Your task to perform on an android device: change your default location settings in chrome Image 0: 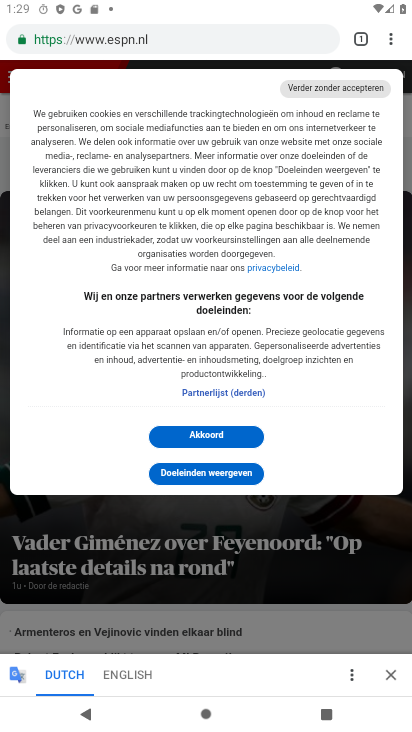
Step 0: drag from (185, 179) to (185, 101)
Your task to perform on an android device: change your default location settings in chrome Image 1: 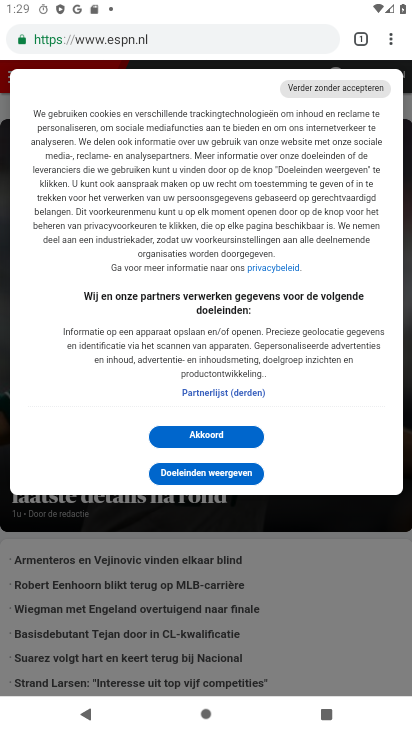
Step 1: press home button
Your task to perform on an android device: change your default location settings in chrome Image 2: 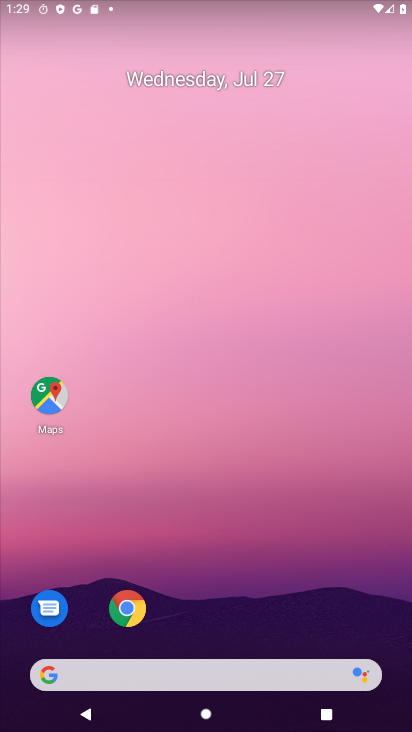
Step 2: click (129, 600)
Your task to perform on an android device: change your default location settings in chrome Image 3: 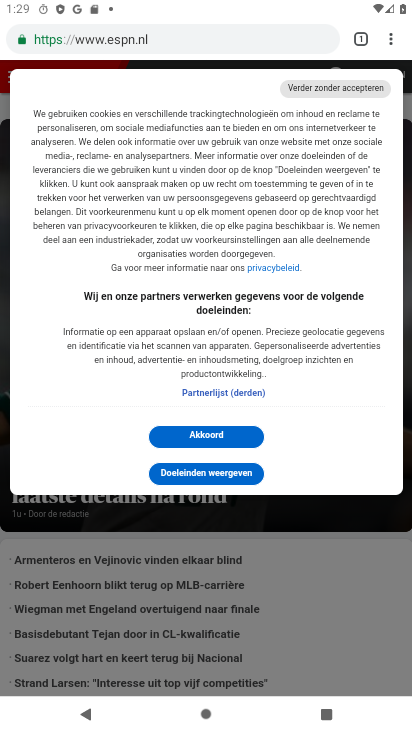
Step 3: click (389, 34)
Your task to perform on an android device: change your default location settings in chrome Image 4: 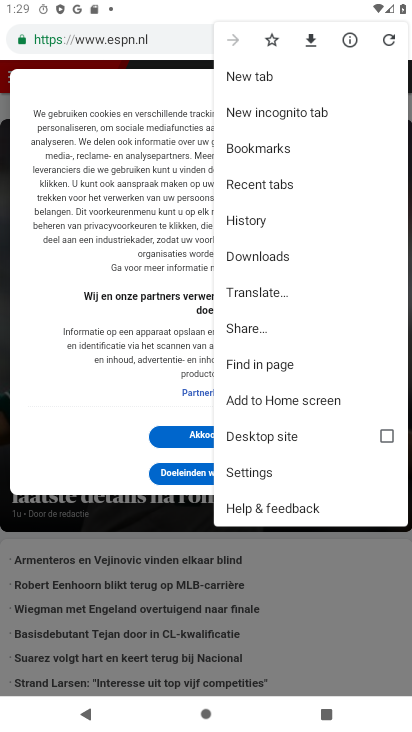
Step 4: click (255, 474)
Your task to perform on an android device: change your default location settings in chrome Image 5: 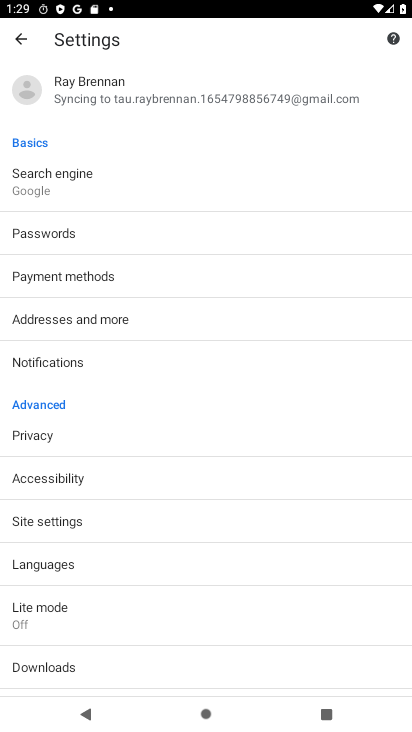
Step 5: click (61, 519)
Your task to perform on an android device: change your default location settings in chrome Image 6: 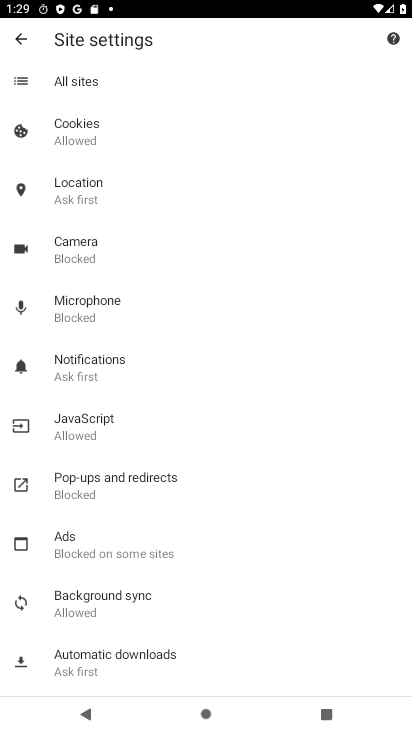
Step 6: drag from (73, 592) to (87, 355)
Your task to perform on an android device: change your default location settings in chrome Image 7: 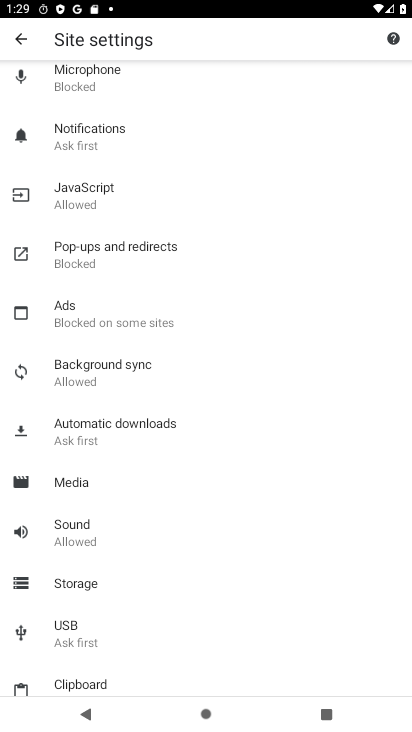
Step 7: drag from (122, 570) to (123, 309)
Your task to perform on an android device: change your default location settings in chrome Image 8: 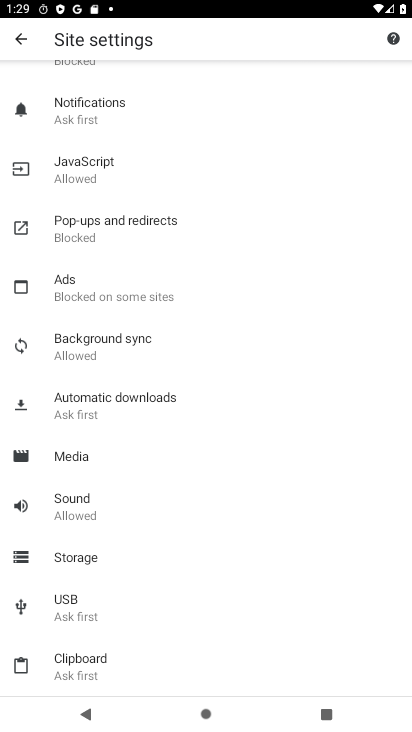
Step 8: drag from (187, 380) to (173, 610)
Your task to perform on an android device: change your default location settings in chrome Image 9: 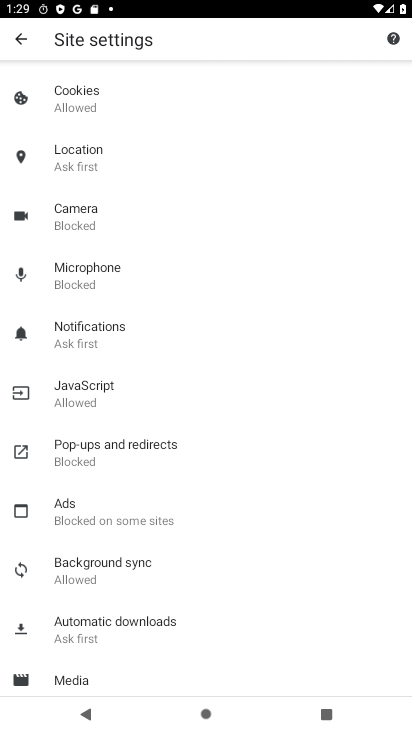
Step 9: click (93, 152)
Your task to perform on an android device: change your default location settings in chrome Image 10: 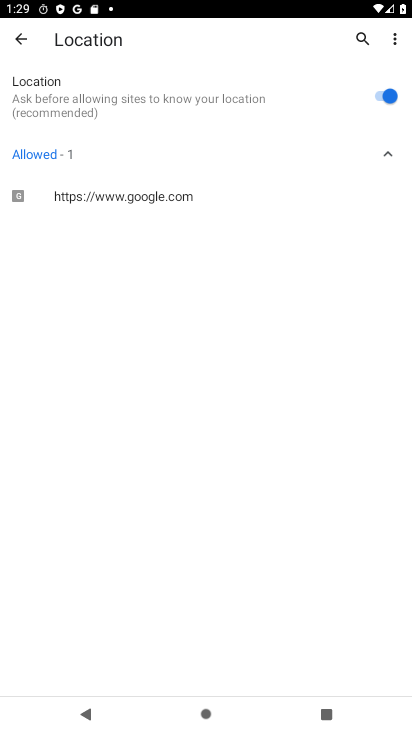
Step 10: click (379, 88)
Your task to perform on an android device: change your default location settings in chrome Image 11: 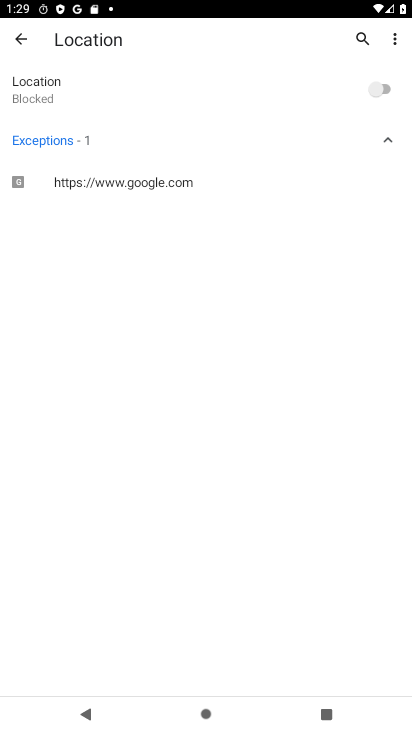
Step 11: task complete